Your task to perform on an android device: Open settings on Google Maps Image 0: 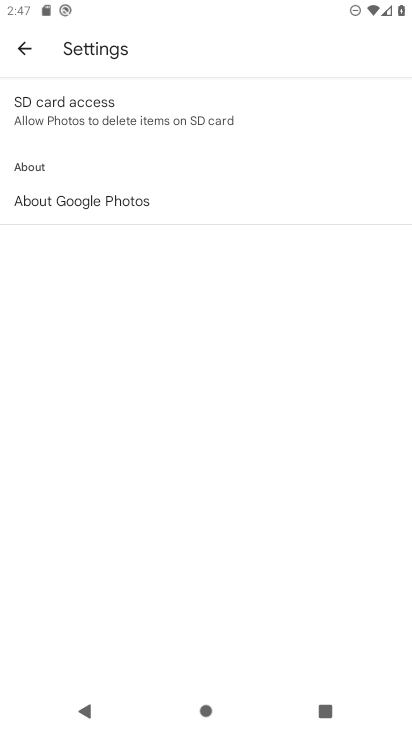
Step 0: press home button
Your task to perform on an android device: Open settings on Google Maps Image 1: 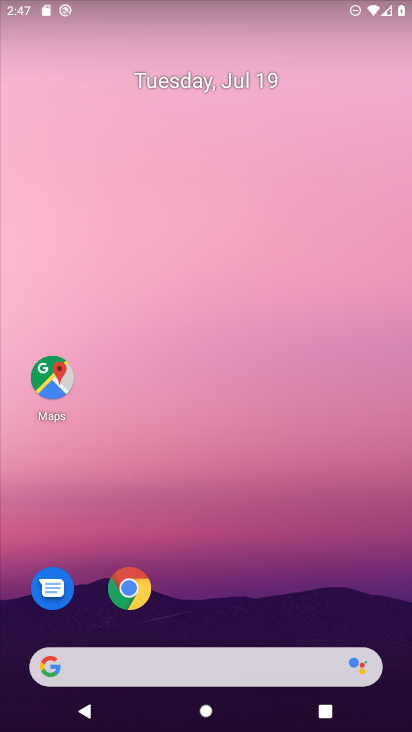
Step 1: click (42, 386)
Your task to perform on an android device: Open settings on Google Maps Image 2: 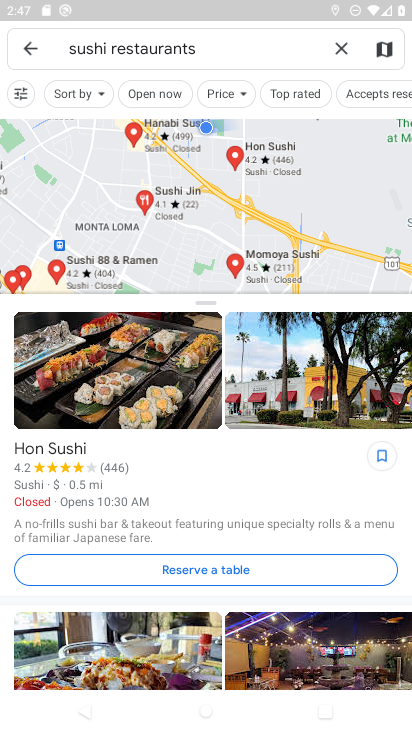
Step 2: click (28, 50)
Your task to perform on an android device: Open settings on Google Maps Image 3: 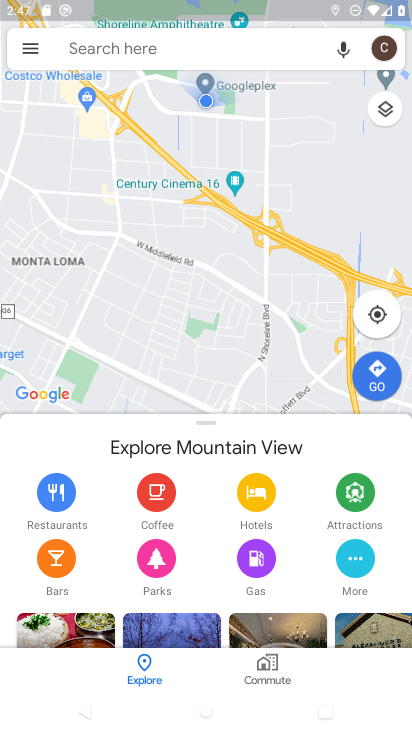
Step 3: task complete